Your task to perform on an android device: Open the map Image 0: 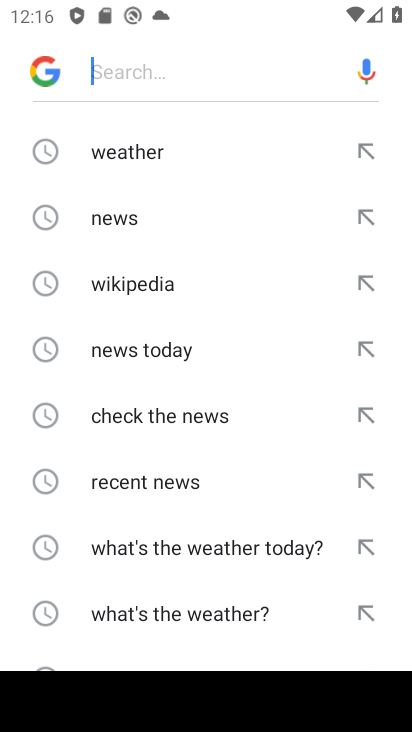
Step 0: press home button
Your task to perform on an android device: Open the map Image 1: 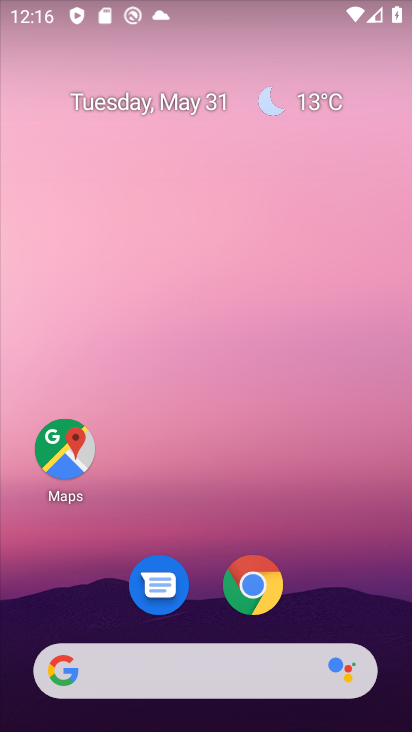
Step 1: click (72, 452)
Your task to perform on an android device: Open the map Image 2: 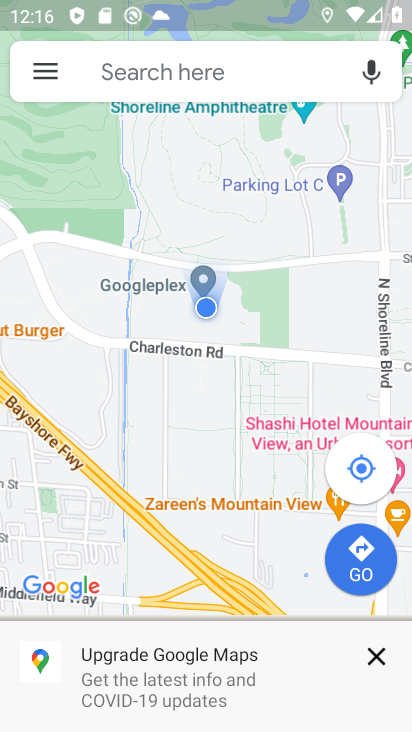
Step 2: task complete